Your task to perform on an android device: turn vacation reply on in the gmail app Image 0: 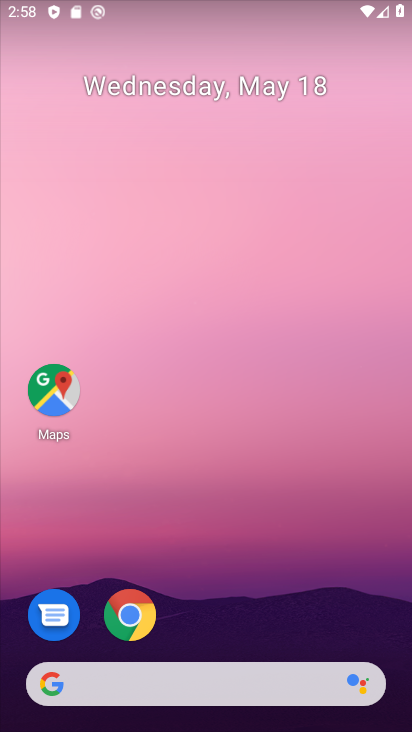
Step 0: drag from (196, 644) to (317, 112)
Your task to perform on an android device: turn vacation reply on in the gmail app Image 1: 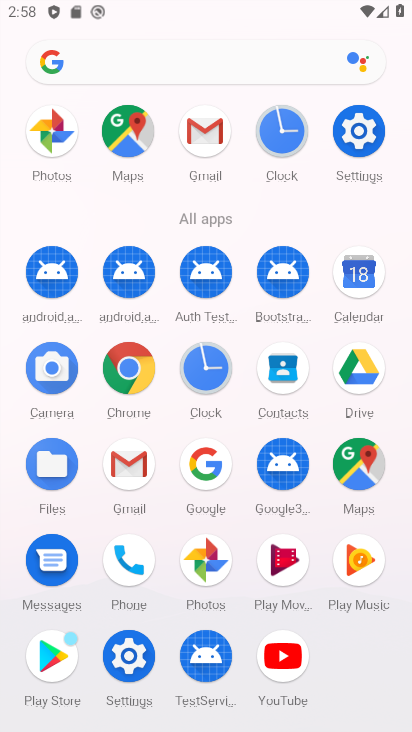
Step 1: click (129, 463)
Your task to perform on an android device: turn vacation reply on in the gmail app Image 2: 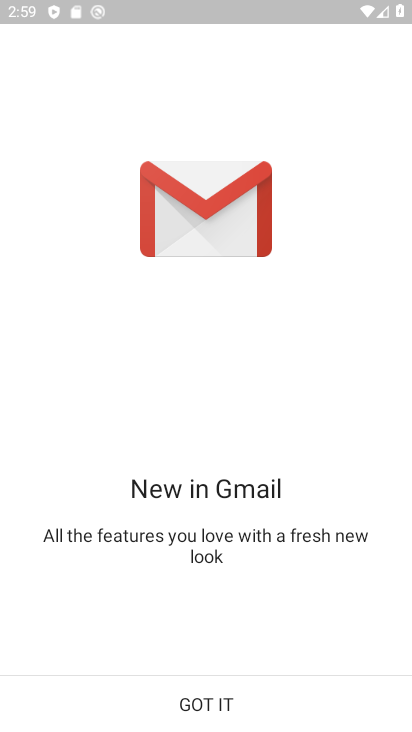
Step 2: click (235, 715)
Your task to perform on an android device: turn vacation reply on in the gmail app Image 3: 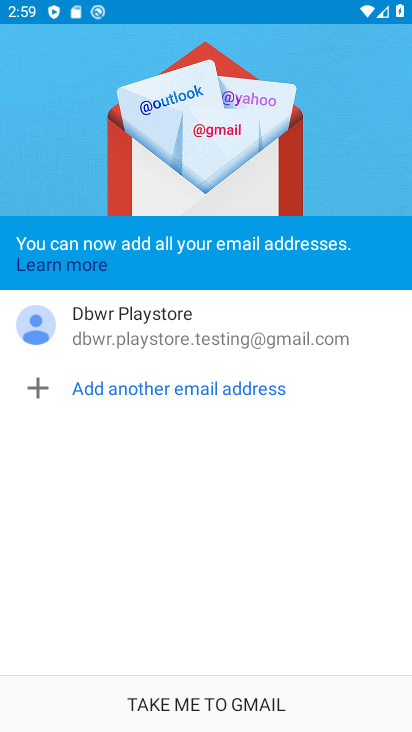
Step 3: click (262, 708)
Your task to perform on an android device: turn vacation reply on in the gmail app Image 4: 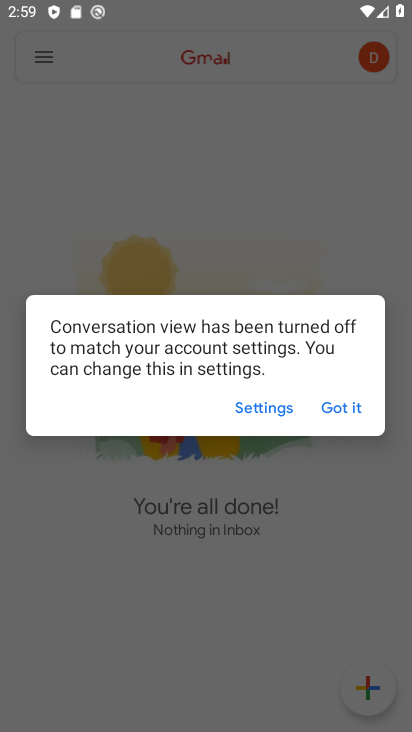
Step 4: click (359, 415)
Your task to perform on an android device: turn vacation reply on in the gmail app Image 5: 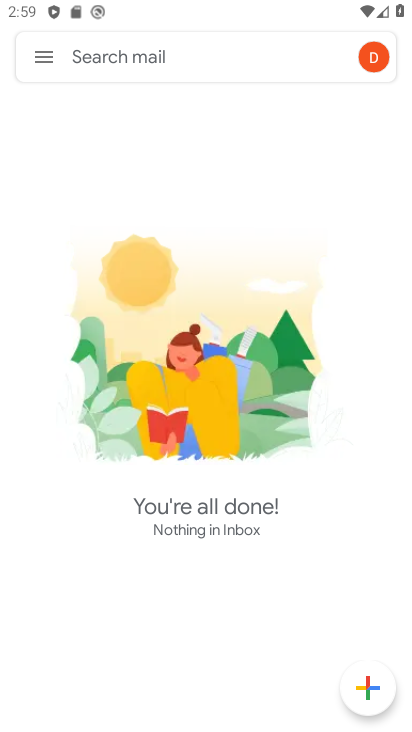
Step 5: click (47, 68)
Your task to perform on an android device: turn vacation reply on in the gmail app Image 6: 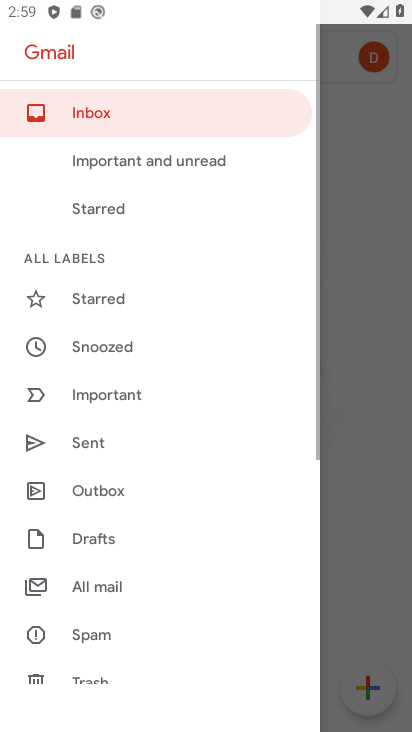
Step 6: drag from (168, 513) to (230, 229)
Your task to perform on an android device: turn vacation reply on in the gmail app Image 7: 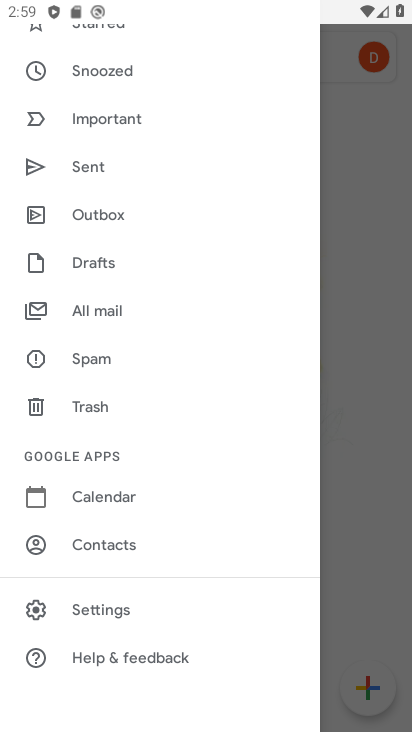
Step 7: click (150, 609)
Your task to perform on an android device: turn vacation reply on in the gmail app Image 8: 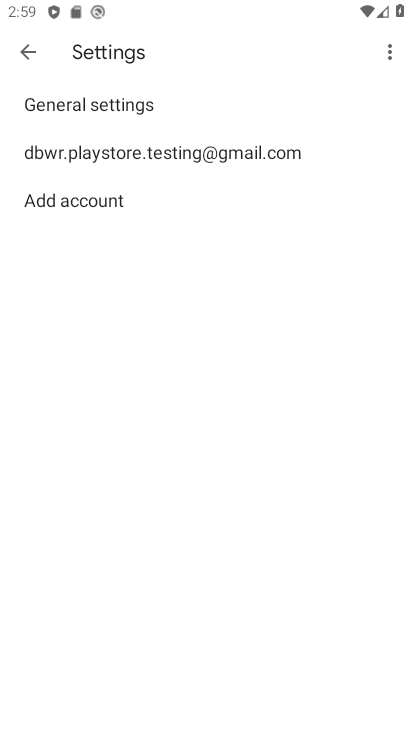
Step 8: click (246, 152)
Your task to perform on an android device: turn vacation reply on in the gmail app Image 9: 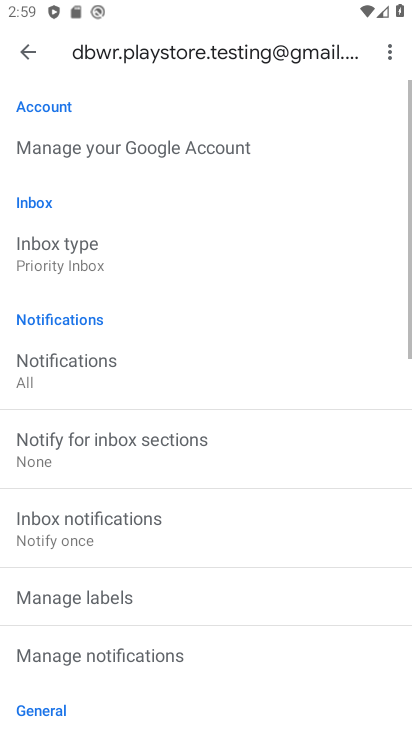
Step 9: drag from (221, 642) to (304, 276)
Your task to perform on an android device: turn vacation reply on in the gmail app Image 10: 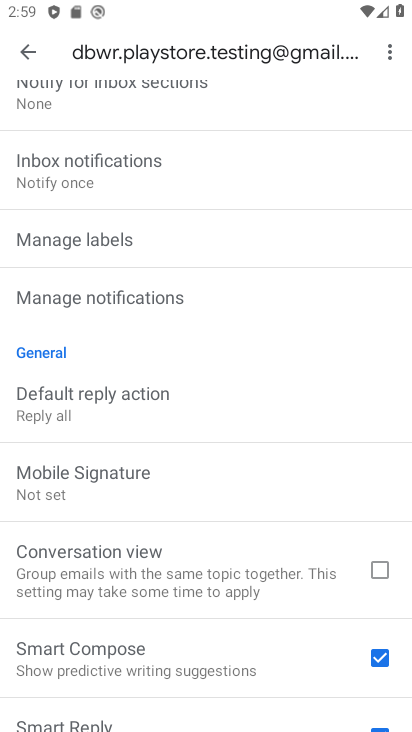
Step 10: drag from (189, 611) to (309, 250)
Your task to perform on an android device: turn vacation reply on in the gmail app Image 11: 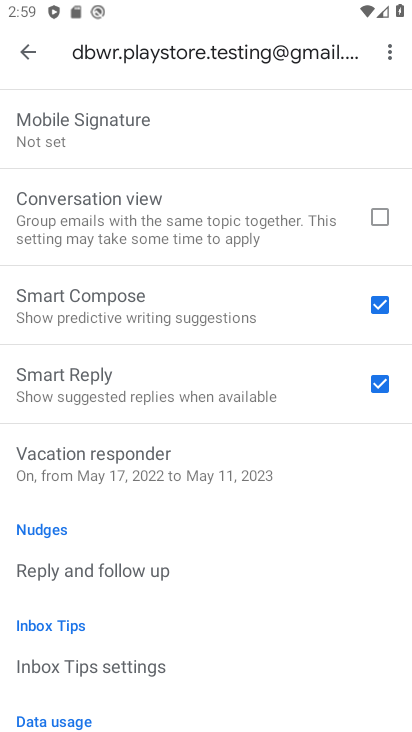
Step 11: click (212, 466)
Your task to perform on an android device: turn vacation reply on in the gmail app Image 12: 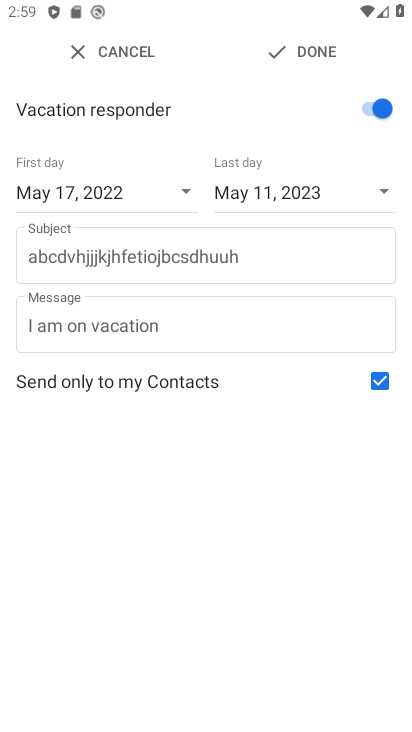
Step 12: task complete